Your task to perform on an android device: Open battery settings Image 0: 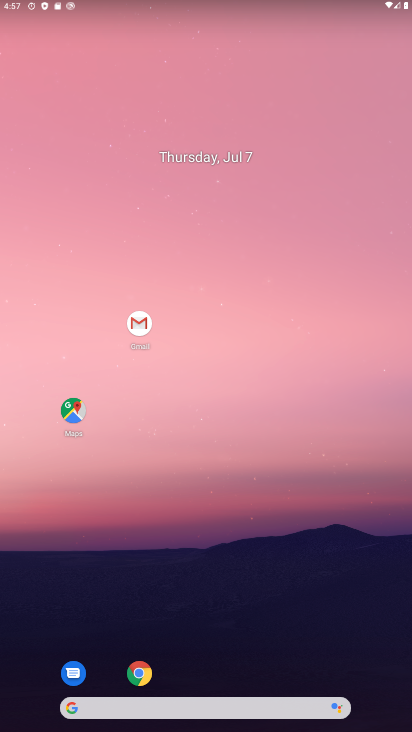
Step 0: drag from (251, 576) to (218, 128)
Your task to perform on an android device: Open battery settings Image 1: 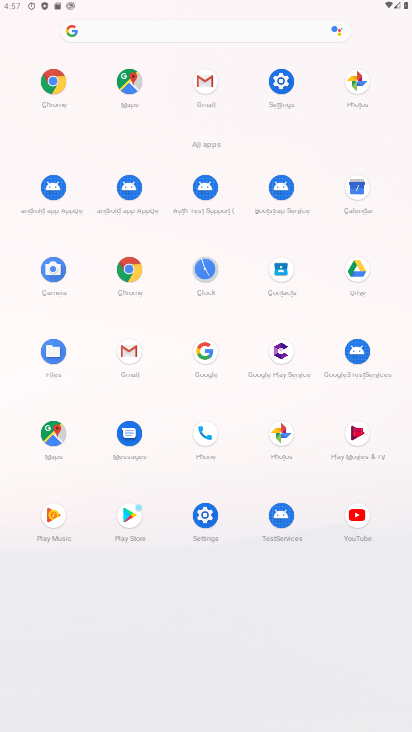
Step 1: click (275, 85)
Your task to perform on an android device: Open battery settings Image 2: 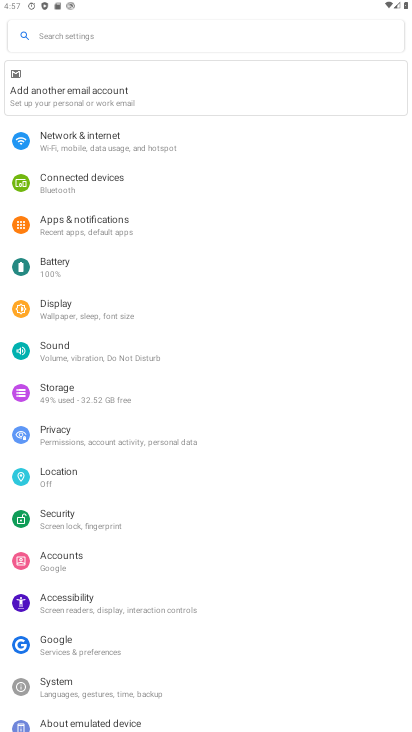
Step 2: click (98, 275)
Your task to perform on an android device: Open battery settings Image 3: 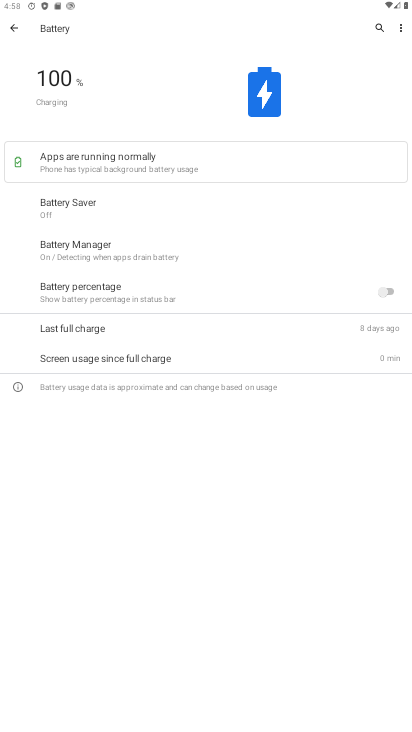
Step 3: task complete